Your task to perform on an android device: move an email to a new category in the gmail app Image 0: 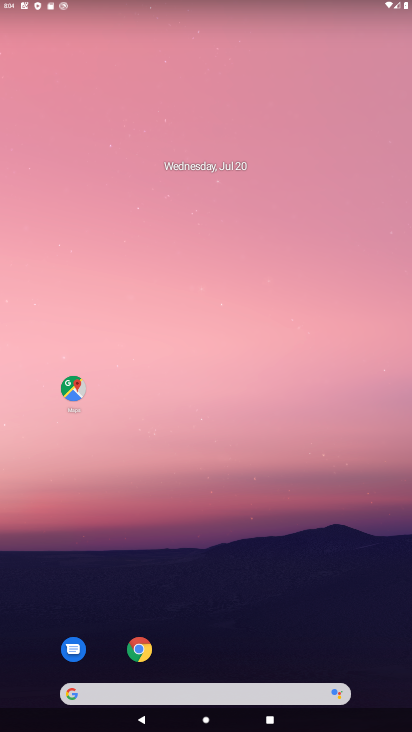
Step 0: drag from (264, 634) to (85, 0)
Your task to perform on an android device: move an email to a new category in the gmail app Image 1: 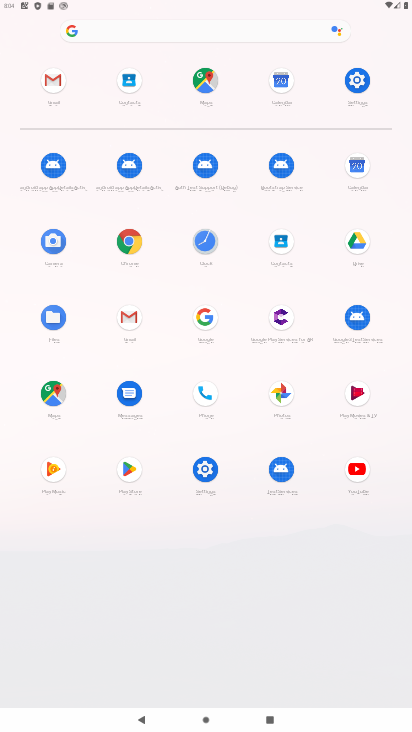
Step 1: click (51, 85)
Your task to perform on an android device: move an email to a new category in the gmail app Image 2: 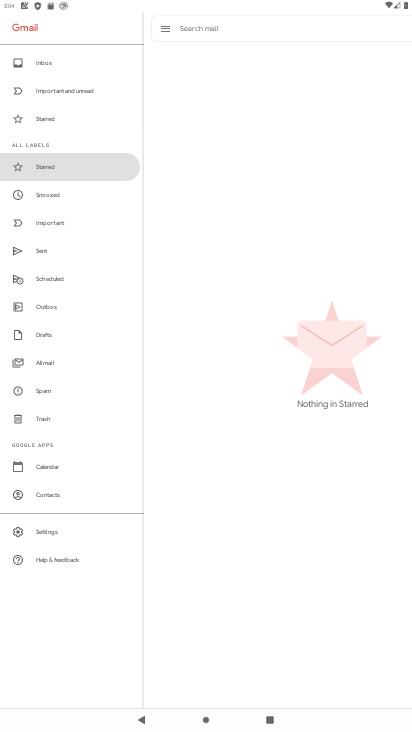
Step 2: click (60, 74)
Your task to perform on an android device: move an email to a new category in the gmail app Image 3: 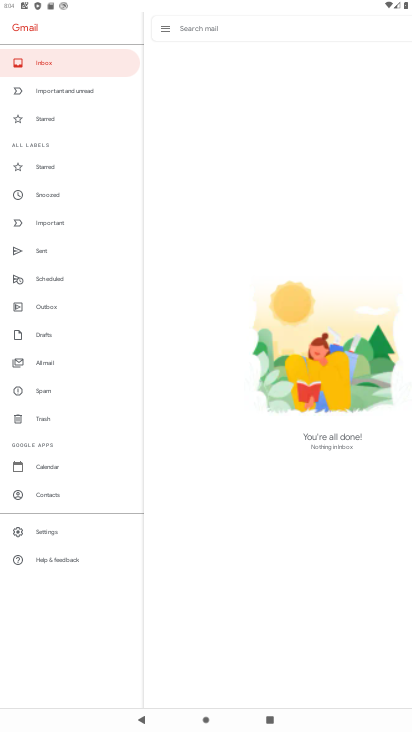
Step 3: task complete